Your task to perform on an android device: Open Google Chrome and open the bookmarks view Image 0: 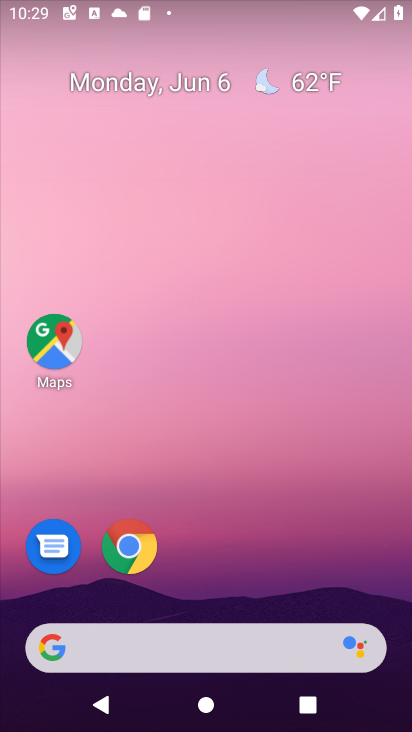
Step 0: click (130, 546)
Your task to perform on an android device: Open Google Chrome and open the bookmarks view Image 1: 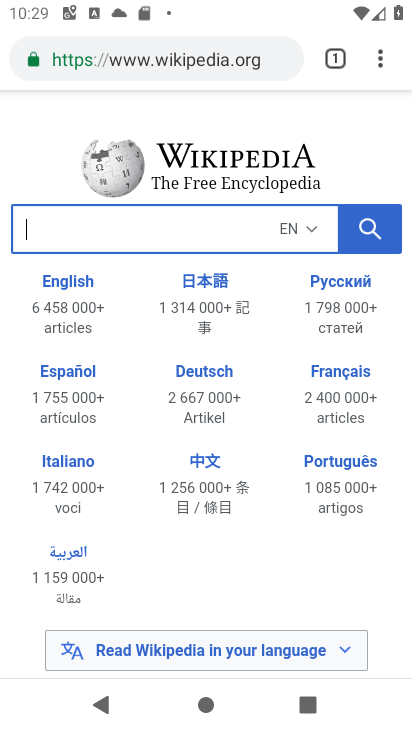
Step 1: click (378, 64)
Your task to perform on an android device: Open Google Chrome and open the bookmarks view Image 2: 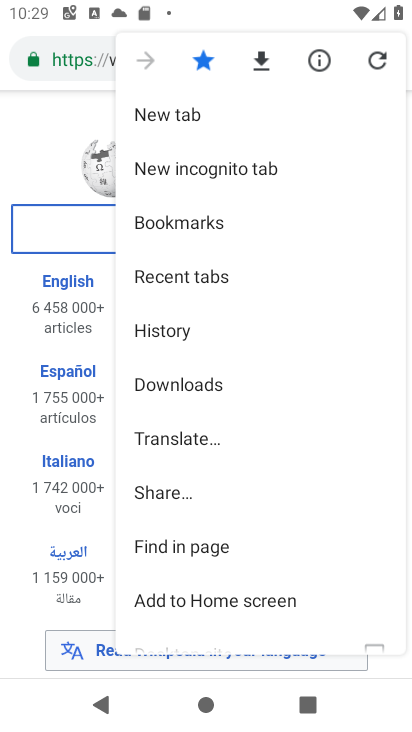
Step 2: click (170, 224)
Your task to perform on an android device: Open Google Chrome and open the bookmarks view Image 3: 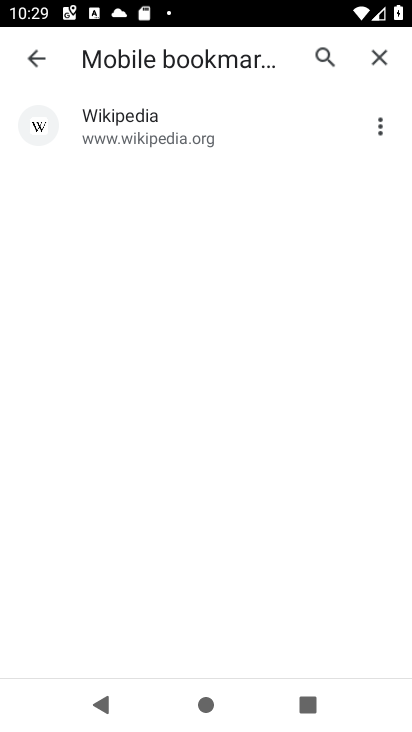
Step 3: task complete